Your task to perform on an android device: Go to privacy settings Image 0: 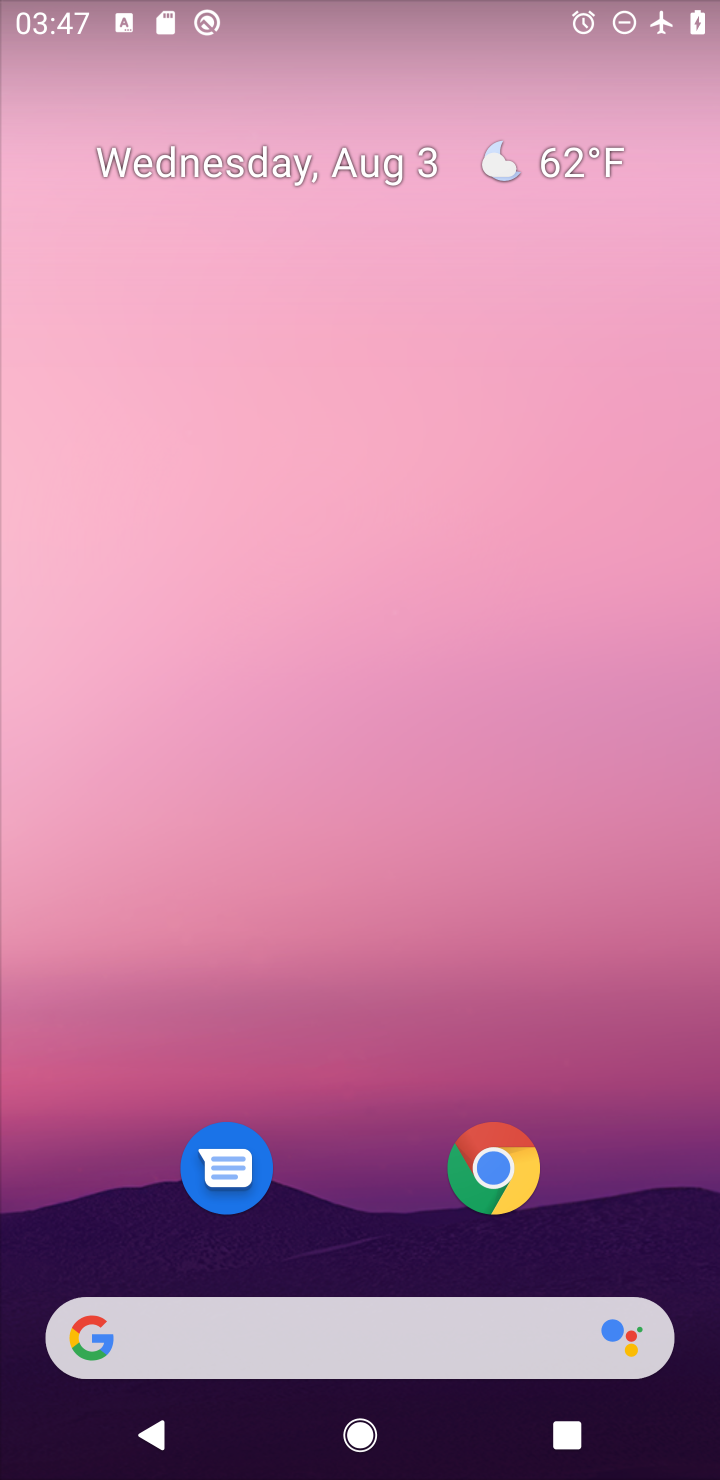
Step 0: drag from (628, 962) to (589, 396)
Your task to perform on an android device: Go to privacy settings Image 1: 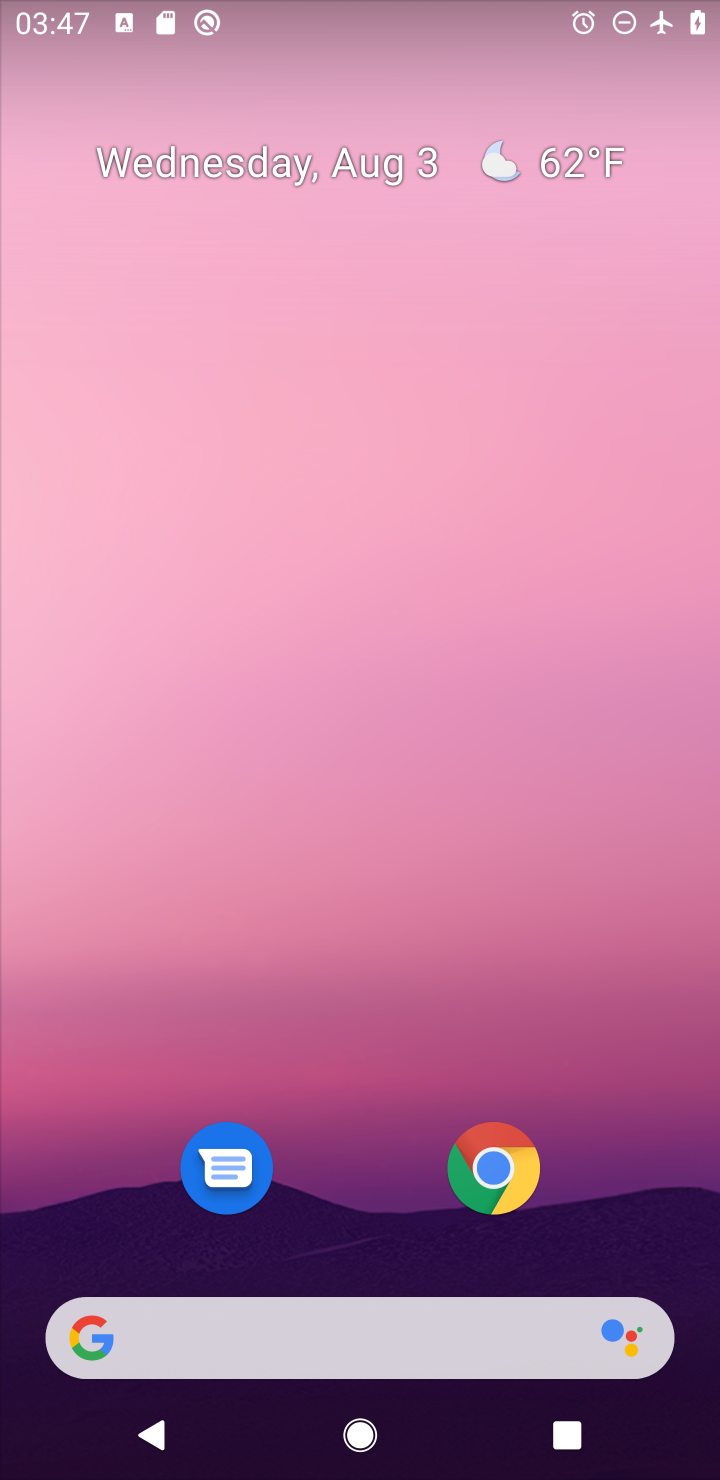
Step 1: drag from (653, 1231) to (643, 169)
Your task to perform on an android device: Go to privacy settings Image 2: 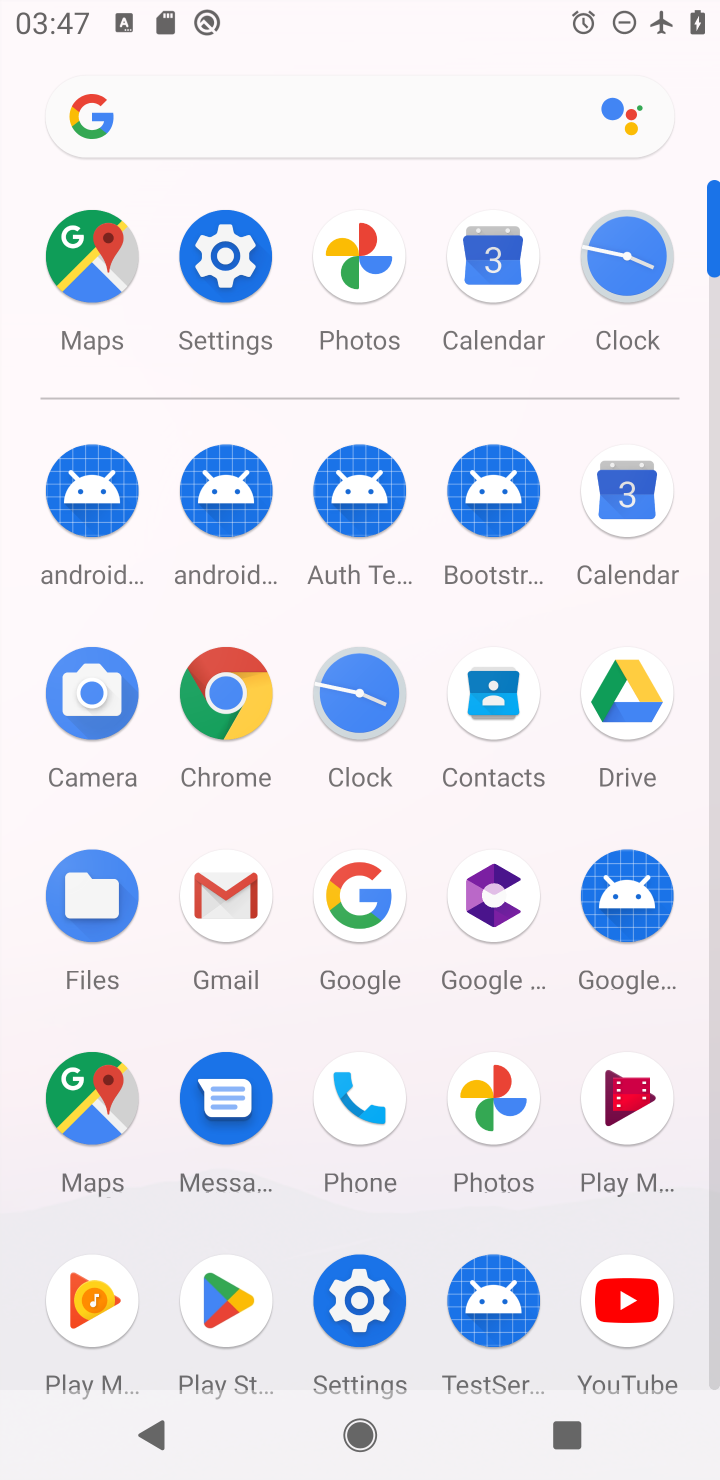
Step 2: click (362, 1299)
Your task to perform on an android device: Go to privacy settings Image 3: 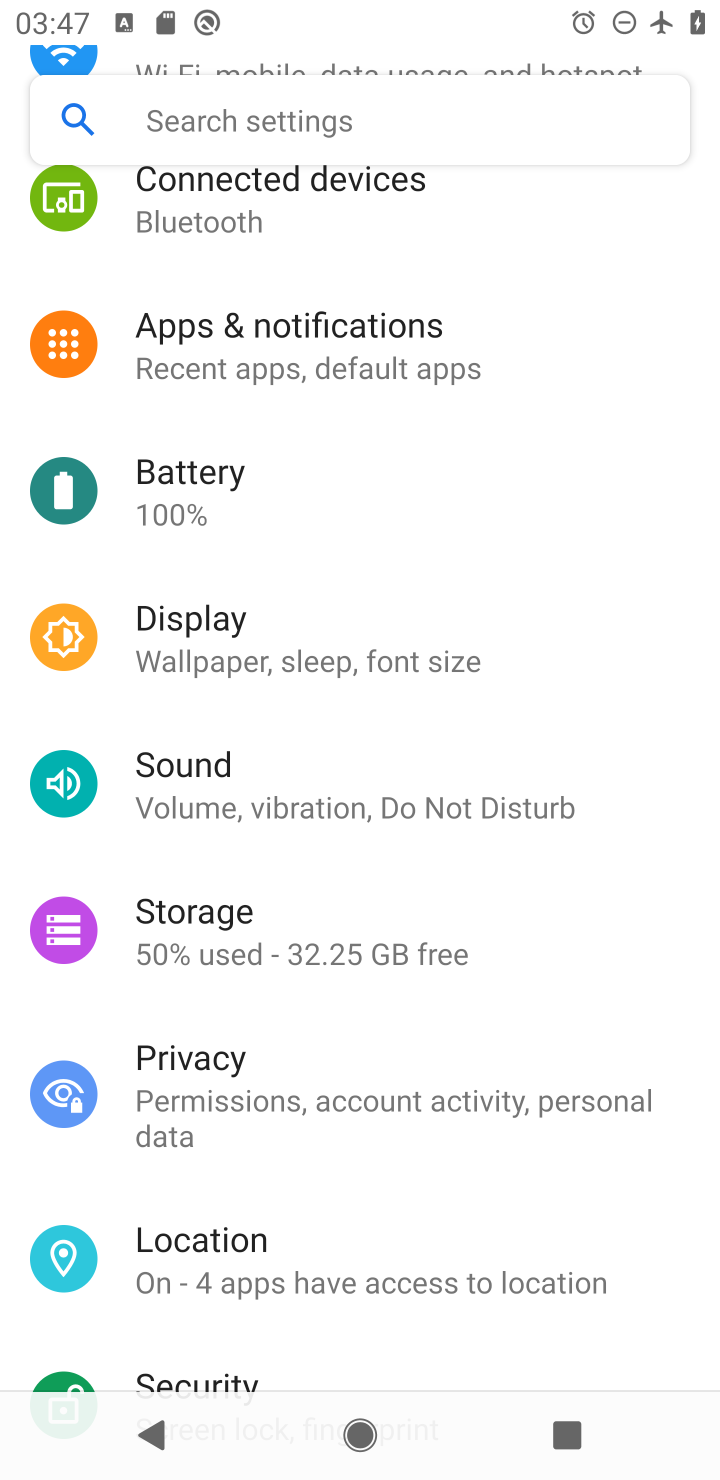
Step 3: click (190, 1069)
Your task to perform on an android device: Go to privacy settings Image 4: 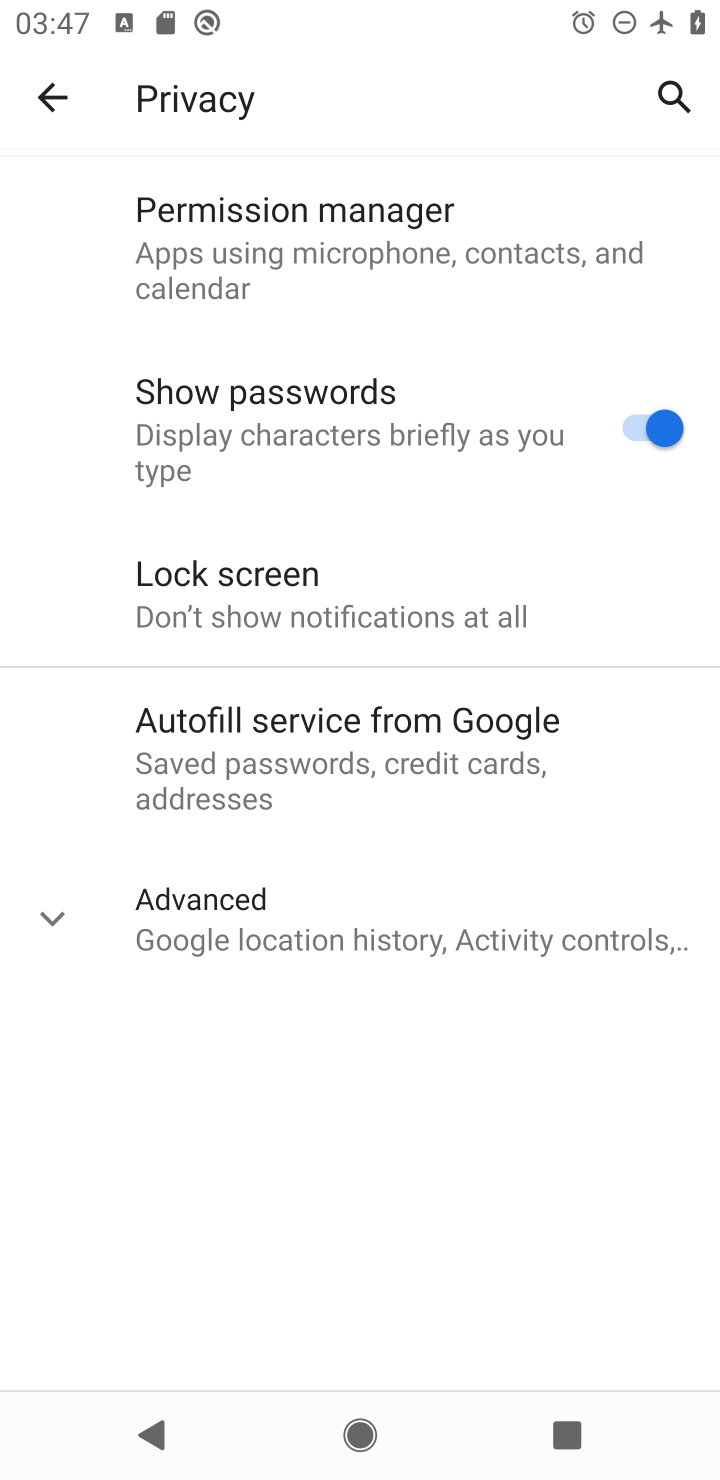
Step 4: click (53, 911)
Your task to perform on an android device: Go to privacy settings Image 5: 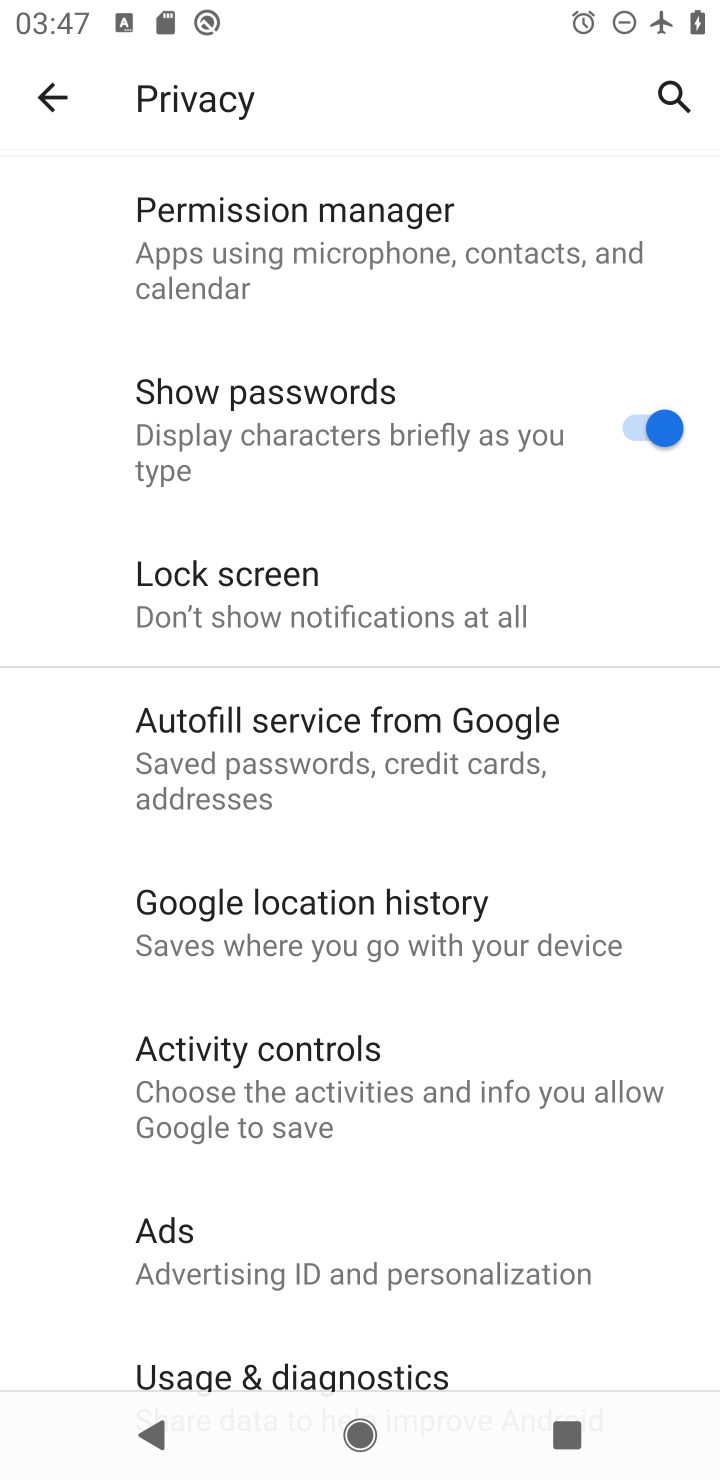
Step 5: task complete